Your task to perform on an android device: Open privacy settings Image 0: 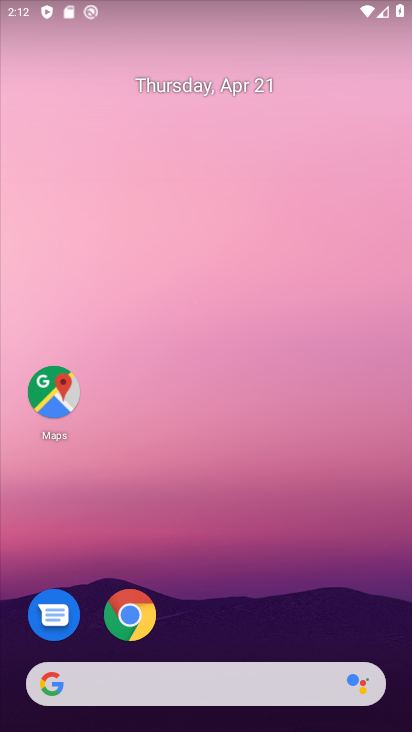
Step 0: drag from (249, 446) to (313, 0)
Your task to perform on an android device: Open privacy settings Image 1: 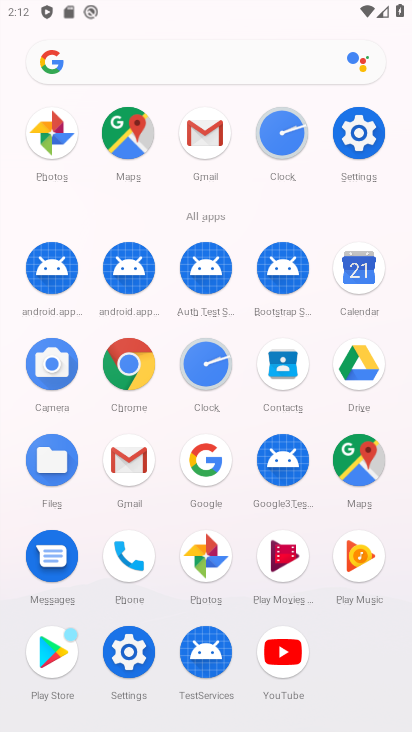
Step 1: click (353, 128)
Your task to perform on an android device: Open privacy settings Image 2: 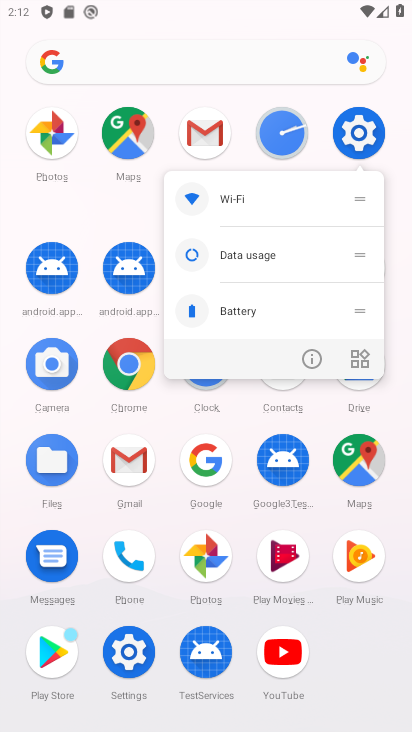
Step 2: click (365, 128)
Your task to perform on an android device: Open privacy settings Image 3: 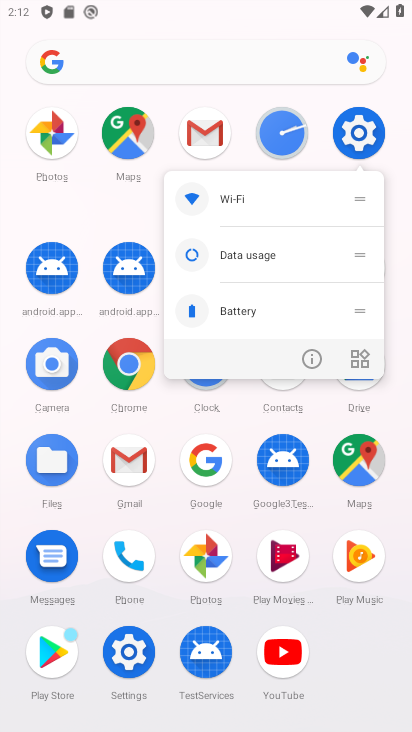
Step 3: click (352, 132)
Your task to perform on an android device: Open privacy settings Image 4: 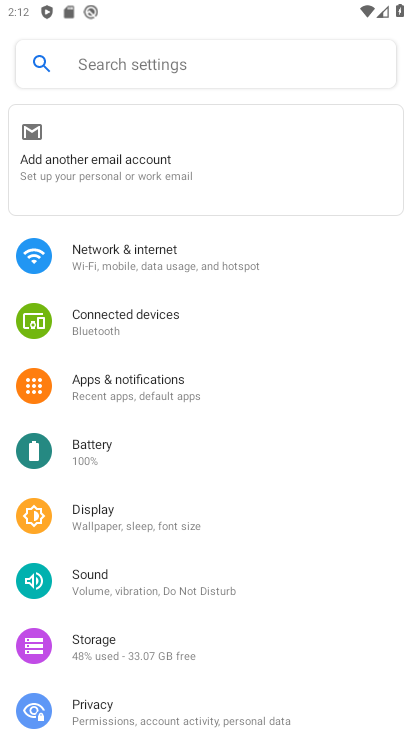
Step 4: click (104, 707)
Your task to perform on an android device: Open privacy settings Image 5: 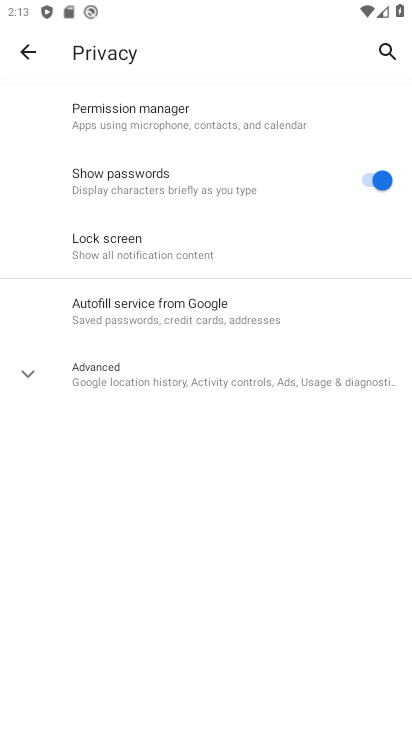
Step 5: task complete